Your task to perform on an android device: Open eBay Image 0: 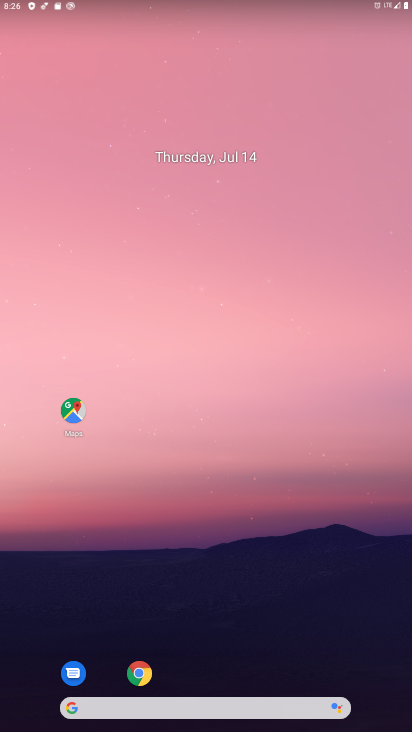
Step 0: click (138, 675)
Your task to perform on an android device: Open eBay Image 1: 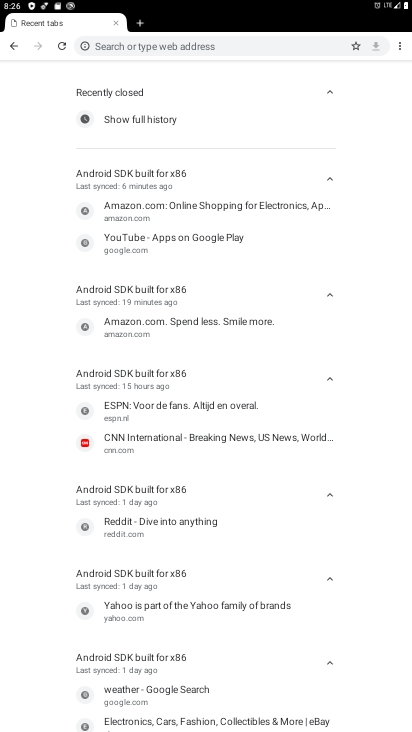
Step 1: click (226, 48)
Your task to perform on an android device: Open eBay Image 2: 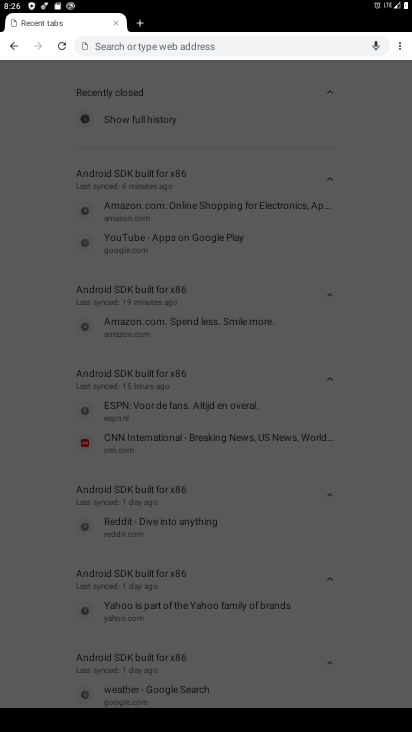
Step 2: type "eBay"
Your task to perform on an android device: Open eBay Image 3: 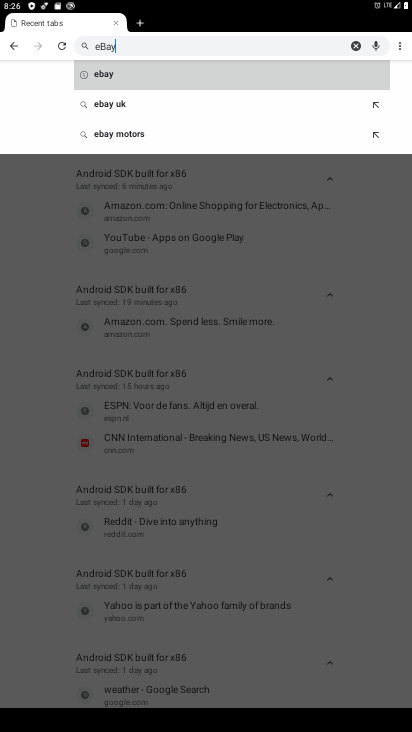
Step 3: click (130, 75)
Your task to perform on an android device: Open eBay Image 4: 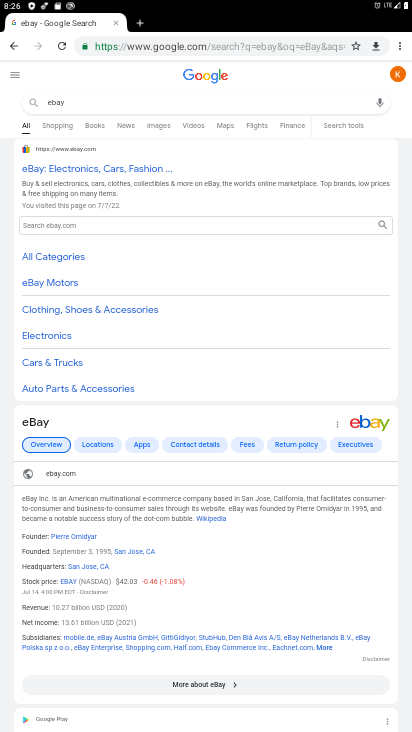
Step 4: click (113, 165)
Your task to perform on an android device: Open eBay Image 5: 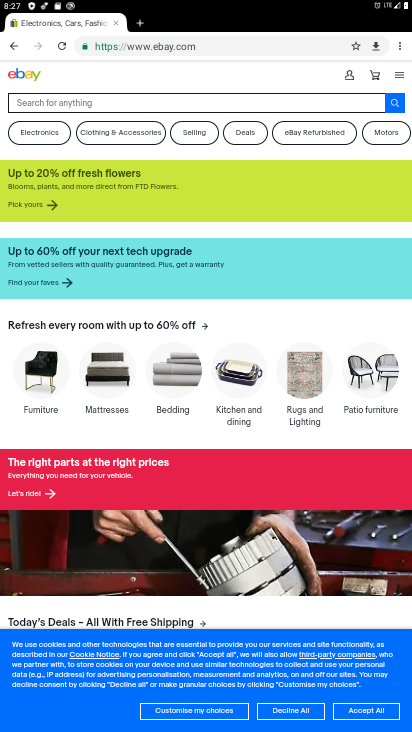
Step 5: task complete